Your task to perform on an android device: Open display settings Image 0: 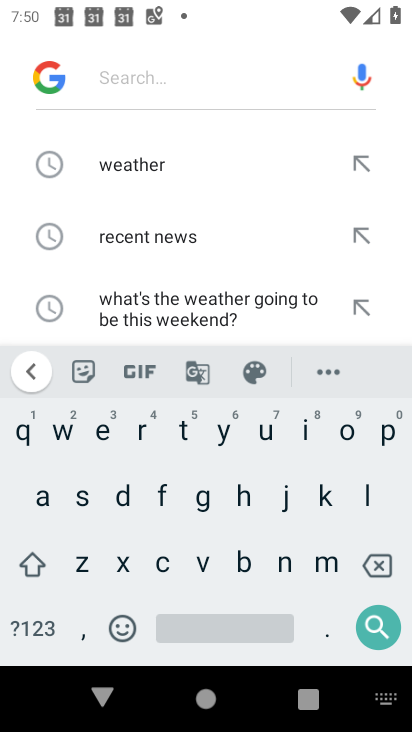
Step 0: press home button
Your task to perform on an android device: Open display settings Image 1: 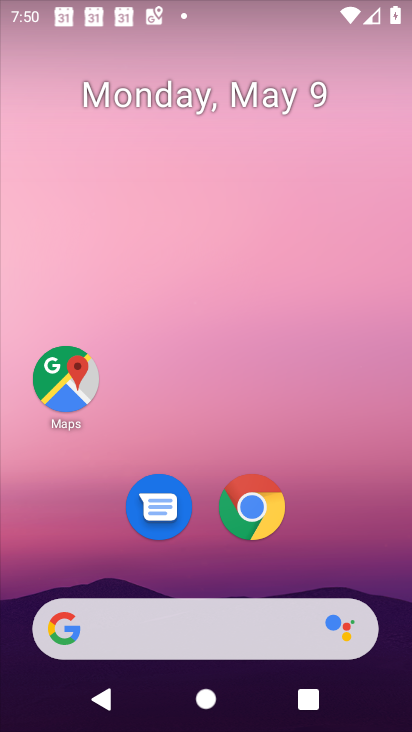
Step 1: drag from (263, 679) to (404, 129)
Your task to perform on an android device: Open display settings Image 2: 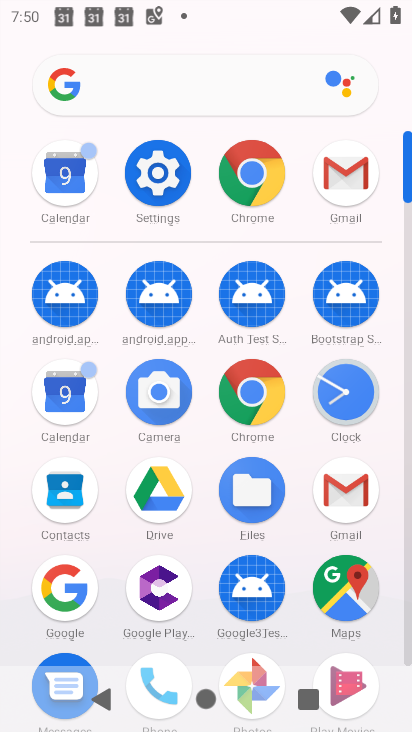
Step 2: click (163, 192)
Your task to perform on an android device: Open display settings Image 3: 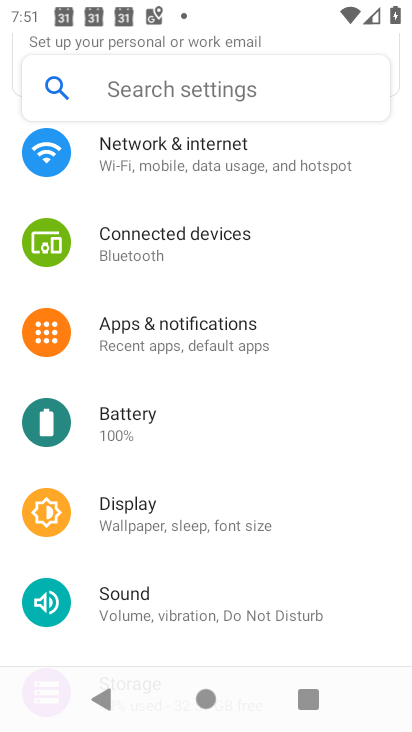
Step 3: click (157, 506)
Your task to perform on an android device: Open display settings Image 4: 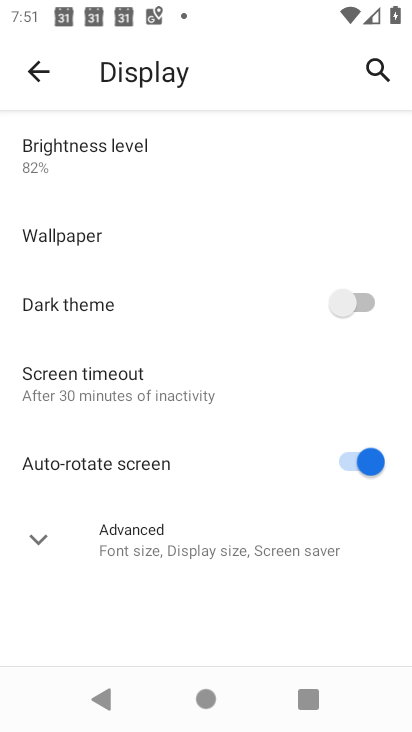
Step 4: task complete